Your task to perform on an android device: turn on showing notifications on the lock screen Image 0: 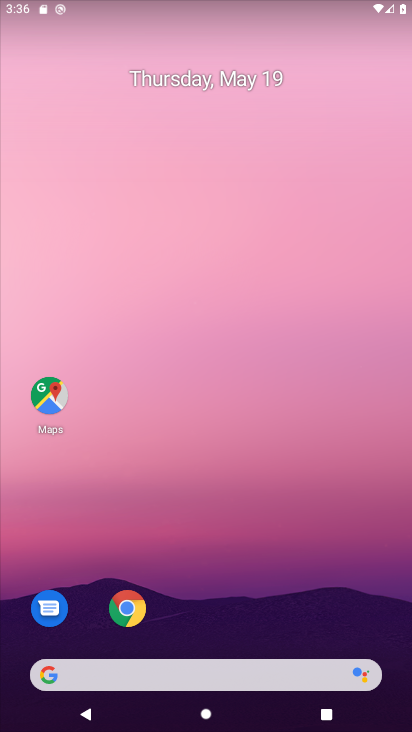
Step 0: click (122, 613)
Your task to perform on an android device: turn on showing notifications on the lock screen Image 1: 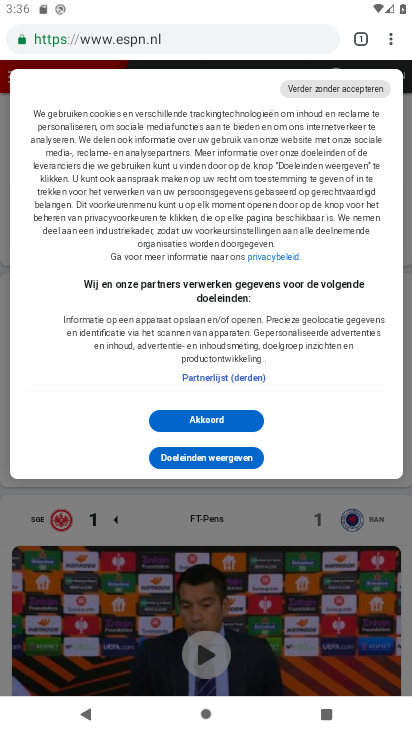
Step 1: press home button
Your task to perform on an android device: turn on showing notifications on the lock screen Image 2: 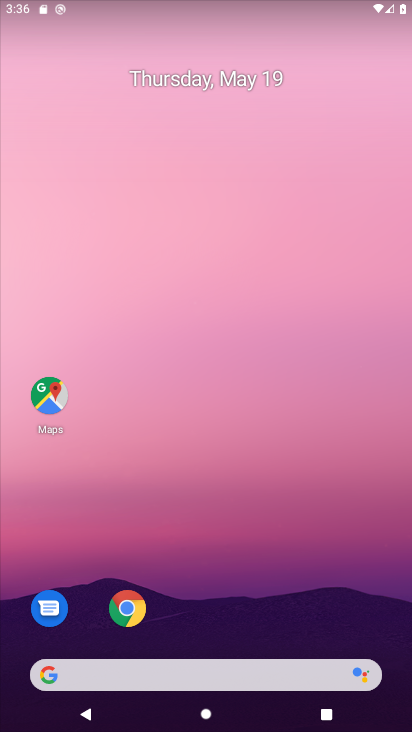
Step 2: drag from (211, 659) to (209, 148)
Your task to perform on an android device: turn on showing notifications on the lock screen Image 3: 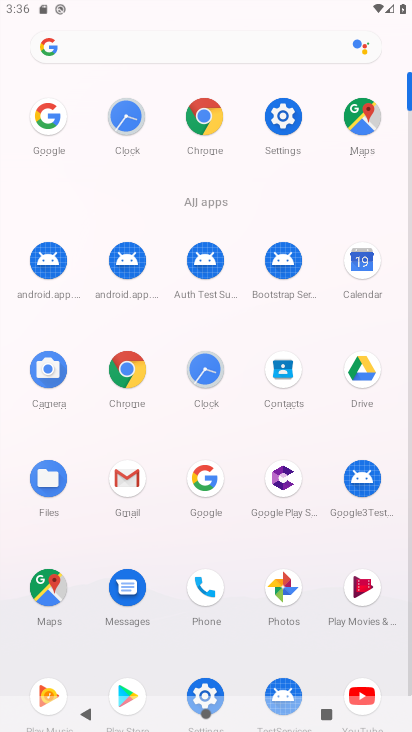
Step 3: click (276, 122)
Your task to perform on an android device: turn on showing notifications on the lock screen Image 4: 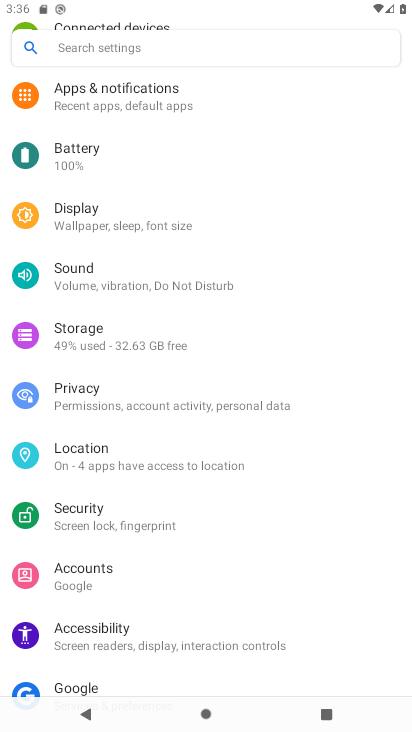
Step 4: click (103, 398)
Your task to perform on an android device: turn on showing notifications on the lock screen Image 5: 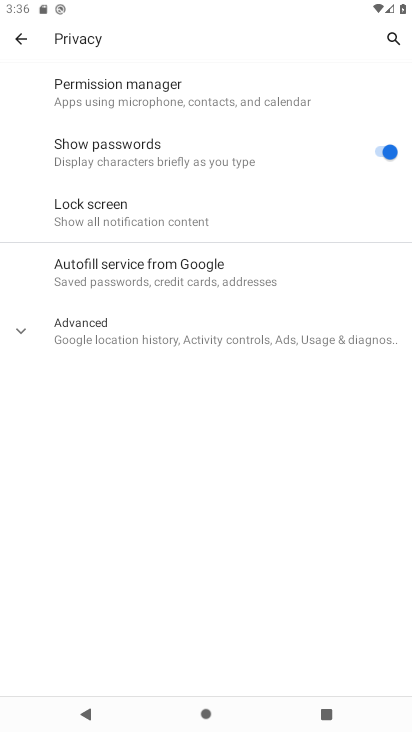
Step 5: click (111, 213)
Your task to perform on an android device: turn on showing notifications on the lock screen Image 6: 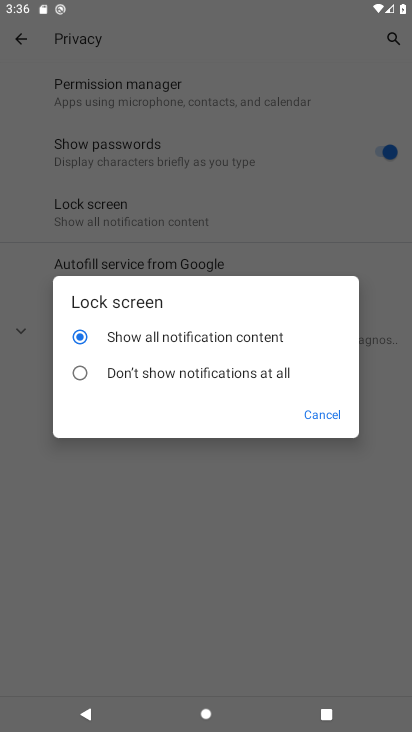
Step 6: click (339, 419)
Your task to perform on an android device: turn on showing notifications on the lock screen Image 7: 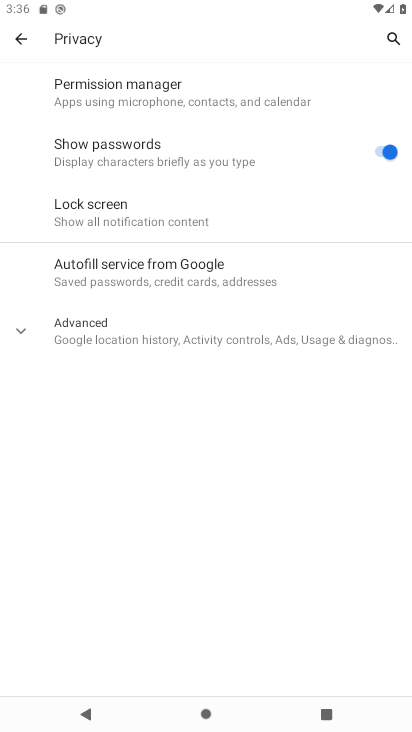
Step 7: task complete